Your task to perform on an android device: open app "McDonald's" (install if not already installed) and go to login screen Image 0: 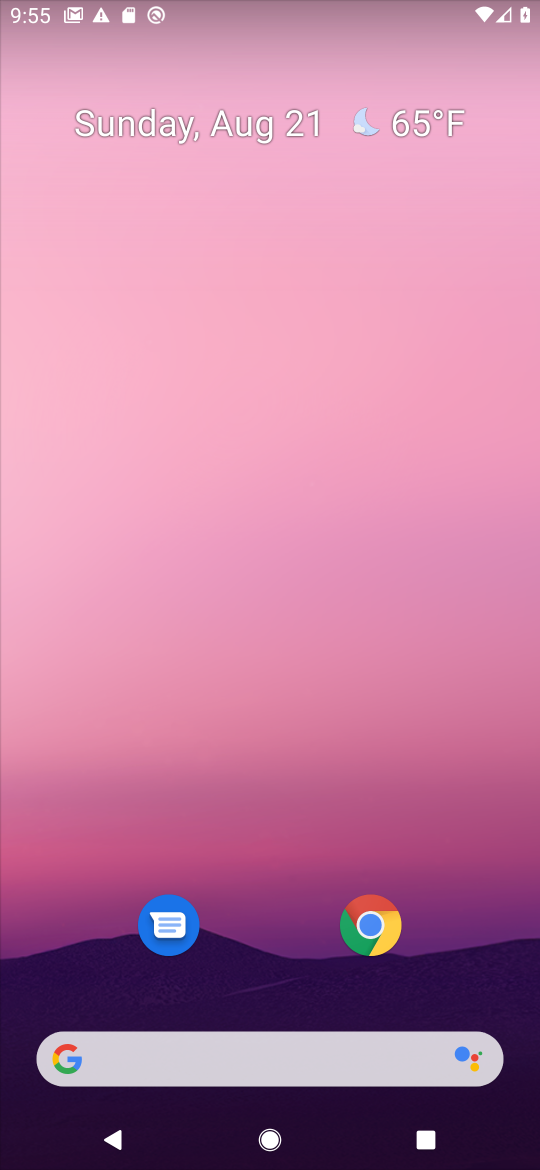
Step 0: drag from (267, 859) to (337, 98)
Your task to perform on an android device: open app "McDonald's" (install if not already installed) and go to login screen Image 1: 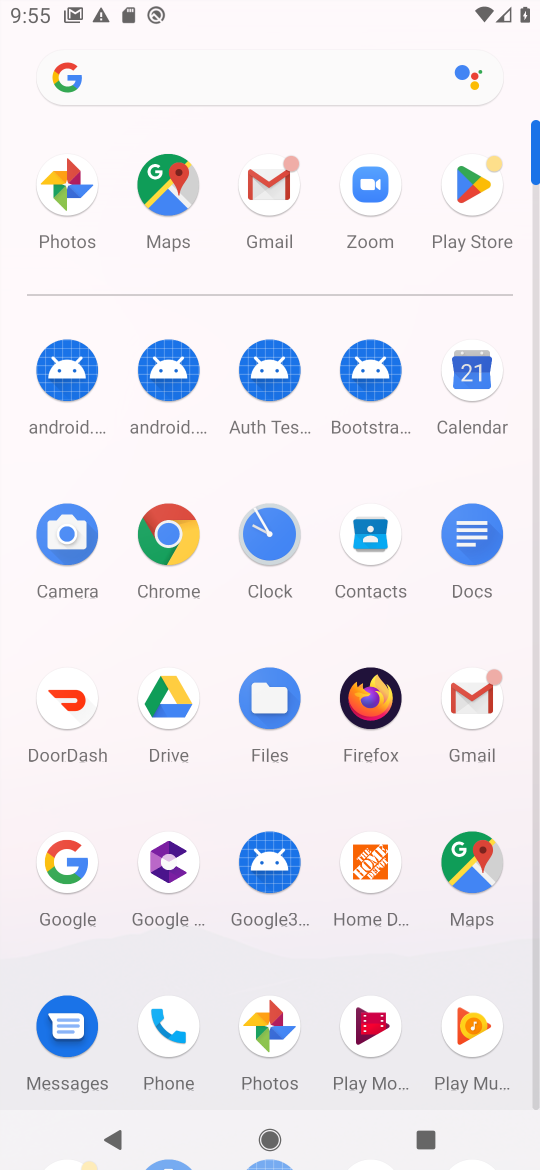
Step 1: click (471, 187)
Your task to perform on an android device: open app "McDonald's" (install if not already installed) and go to login screen Image 2: 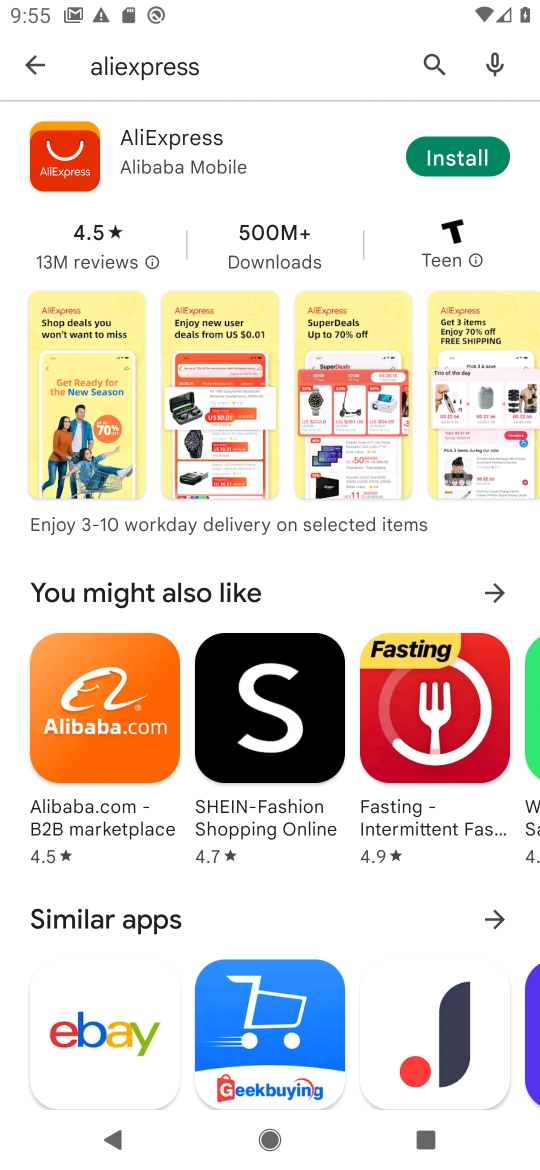
Step 2: click (455, 74)
Your task to perform on an android device: open app "McDonald's" (install if not already installed) and go to login screen Image 3: 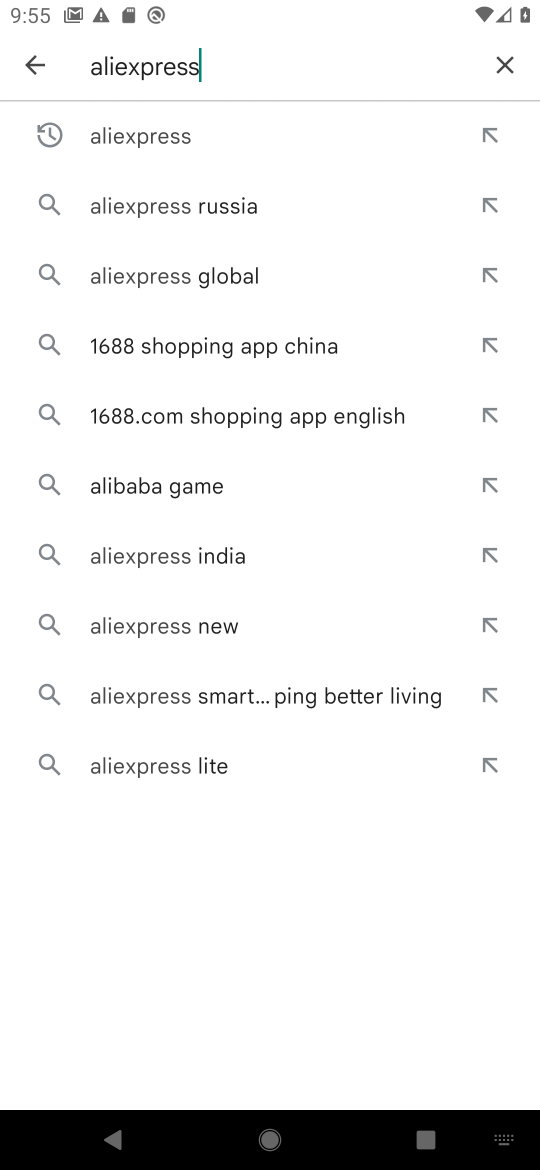
Step 3: click (509, 56)
Your task to perform on an android device: open app "McDonald's" (install if not already installed) and go to login screen Image 4: 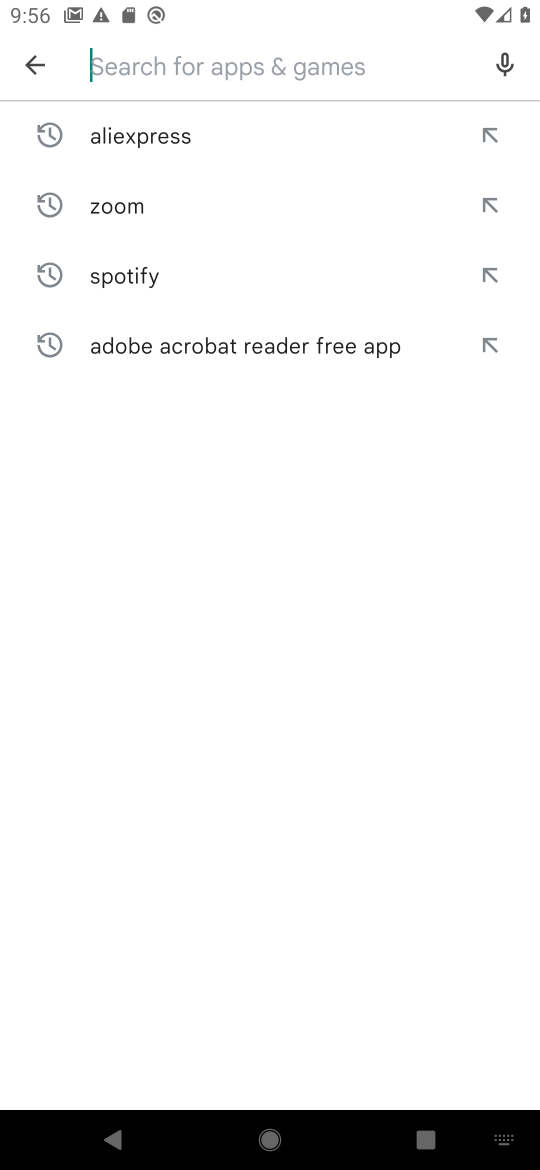
Step 4: click (202, 54)
Your task to perform on an android device: open app "McDonald's" (install if not already installed) and go to login screen Image 5: 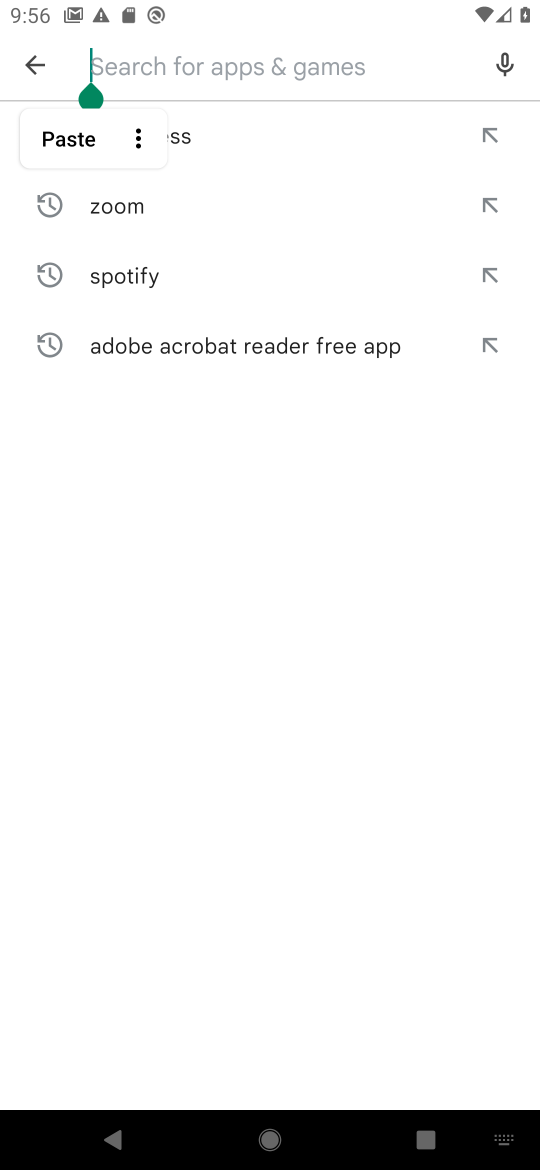
Step 5: type "McDonald's"
Your task to perform on an android device: open app "McDonald's" (install if not already installed) and go to login screen Image 6: 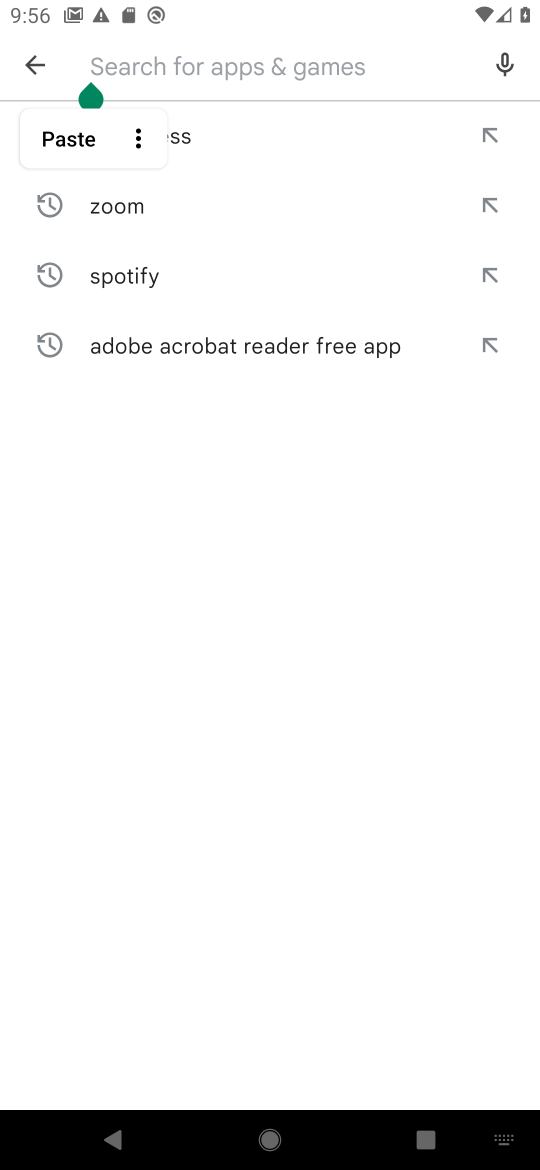
Step 6: click (201, 700)
Your task to perform on an android device: open app "McDonald's" (install if not already installed) and go to login screen Image 7: 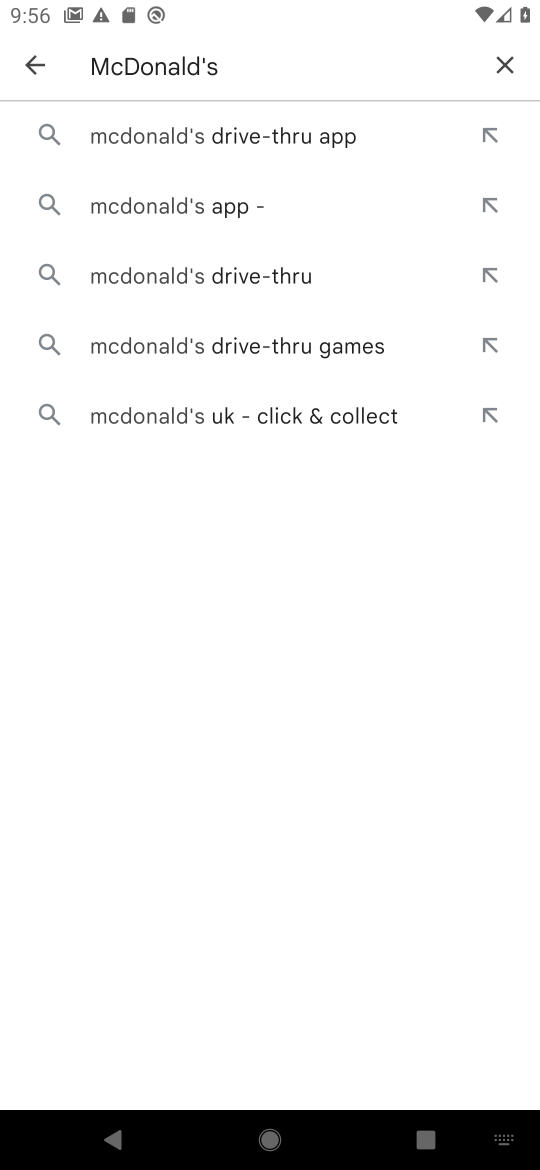
Step 7: click (282, 207)
Your task to perform on an android device: open app "McDonald's" (install if not already installed) and go to login screen Image 8: 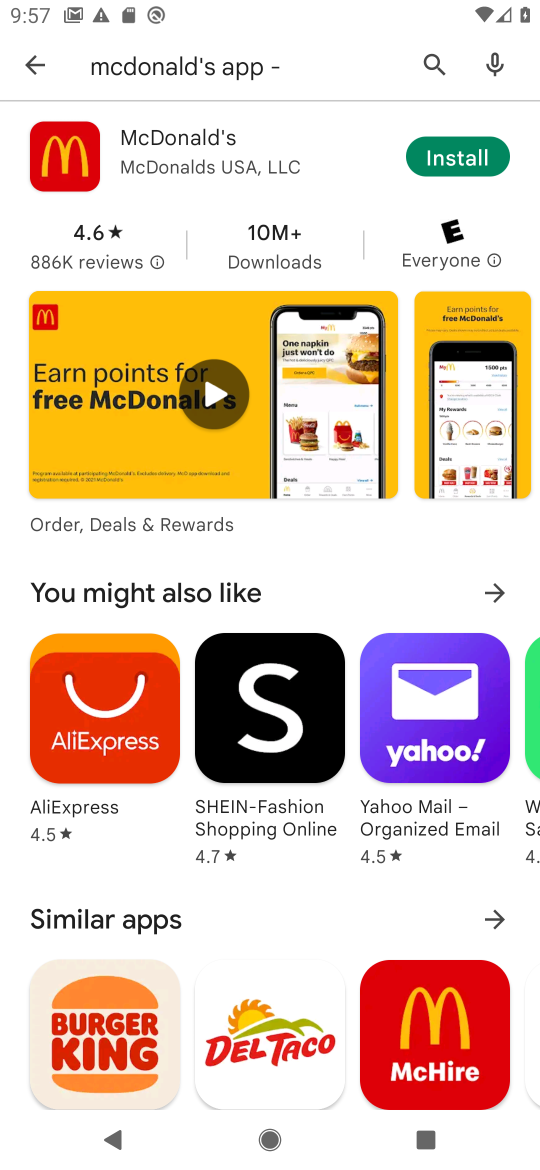
Step 8: click (482, 171)
Your task to perform on an android device: open app "McDonald's" (install if not already installed) and go to login screen Image 9: 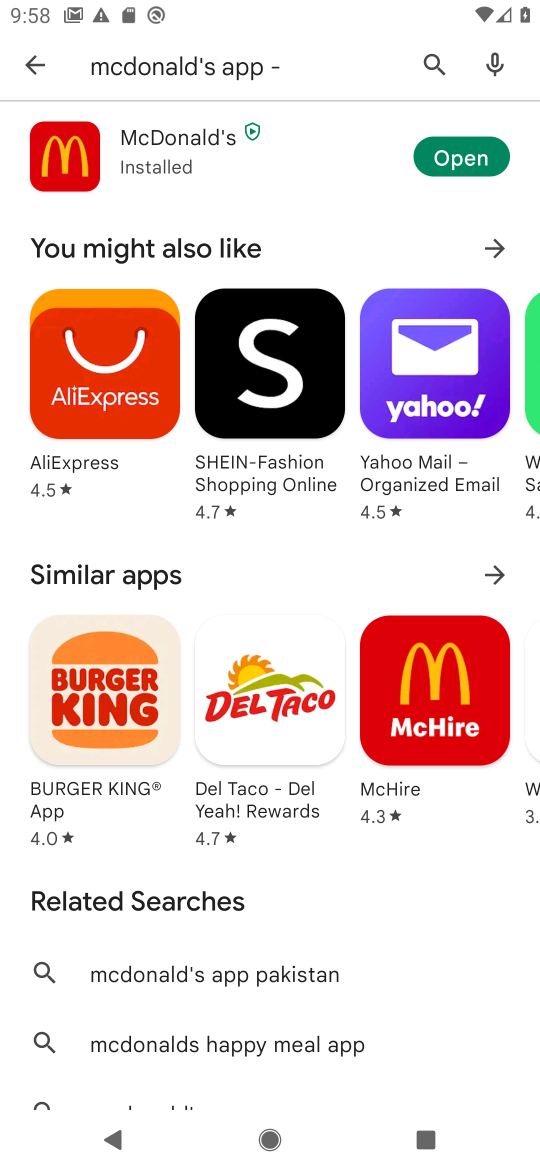
Step 9: click (437, 146)
Your task to perform on an android device: open app "McDonald's" (install if not already installed) and go to login screen Image 10: 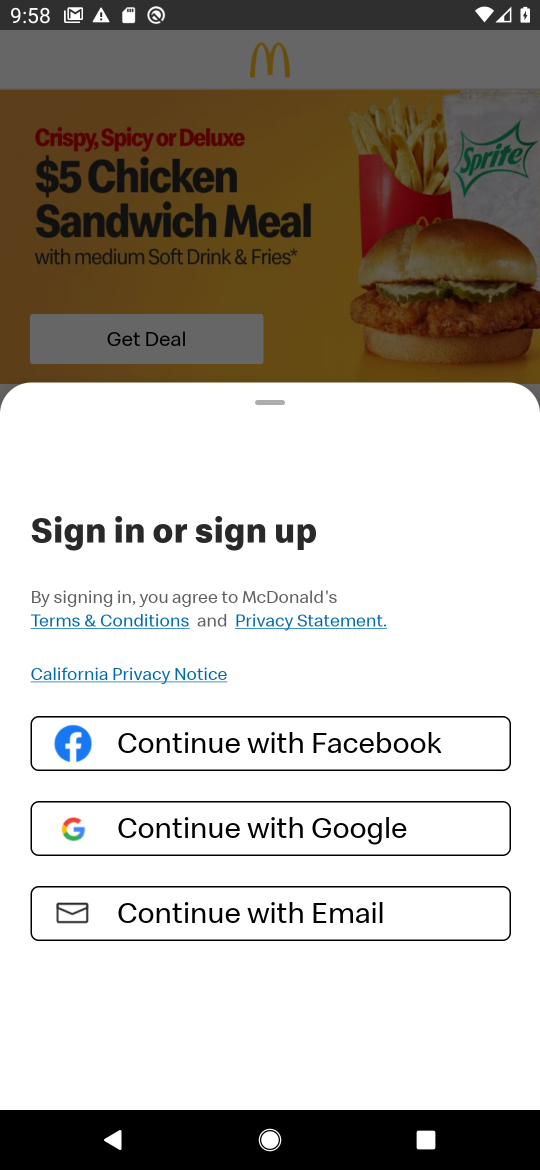
Step 10: task complete